Your task to perform on an android device: empty trash in the gmail app Image 0: 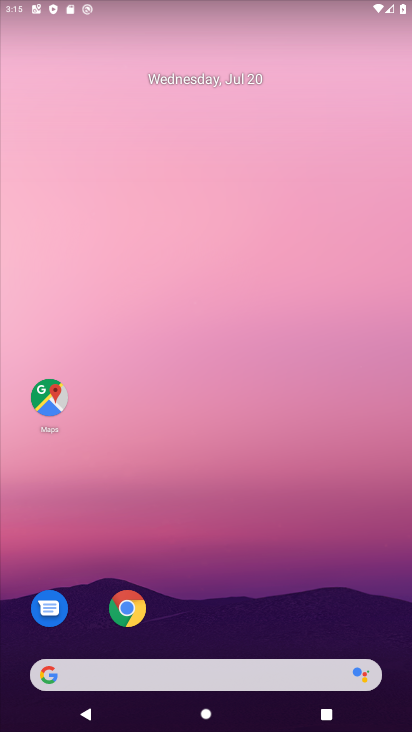
Step 0: drag from (404, 691) to (326, 13)
Your task to perform on an android device: empty trash in the gmail app Image 1: 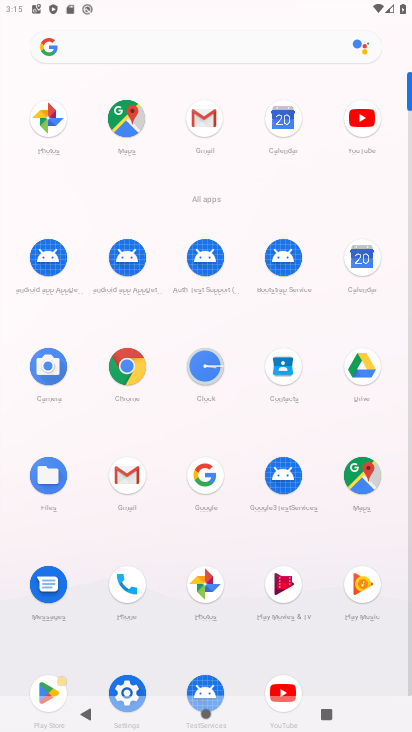
Step 1: click (118, 477)
Your task to perform on an android device: empty trash in the gmail app Image 2: 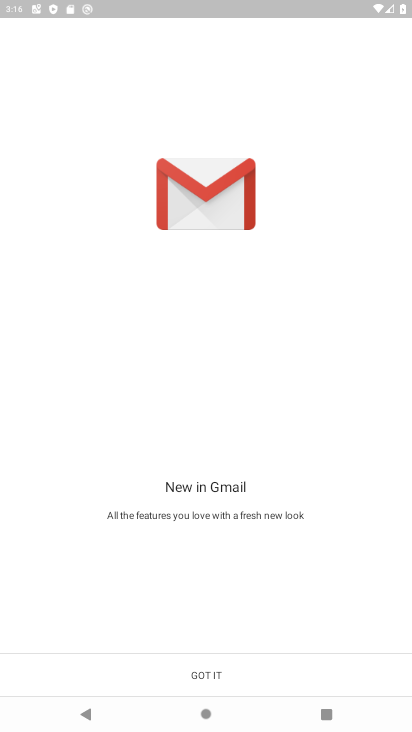
Step 2: click (204, 674)
Your task to perform on an android device: empty trash in the gmail app Image 3: 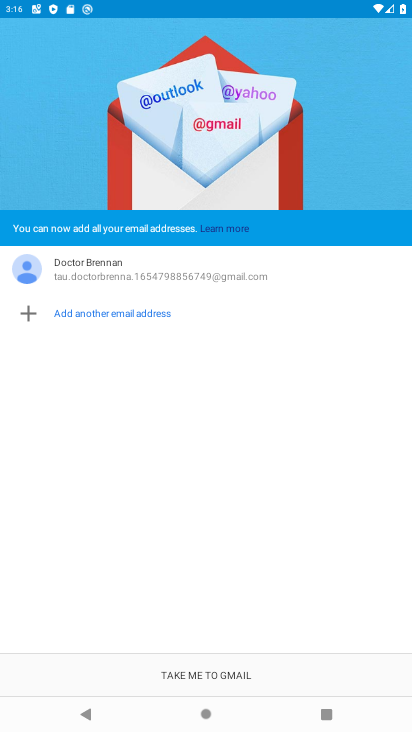
Step 3: click (215, 665)
Your task to perform on an android device: empty trash in the gmail app Image 4: 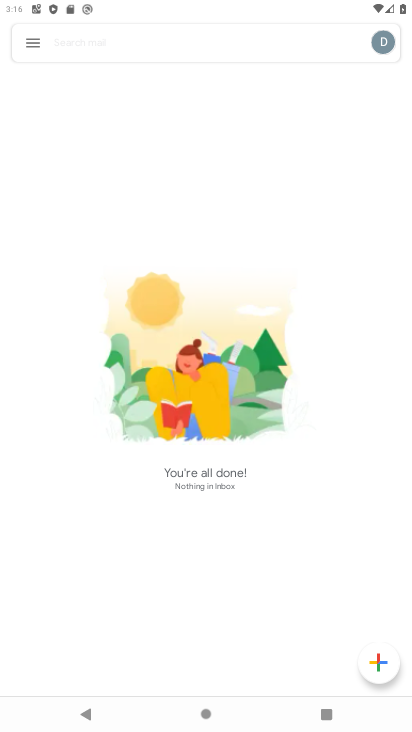
Step 4: click (26, 43)
Your task to perform on an android device: empty trash in the gmail app Image 5: 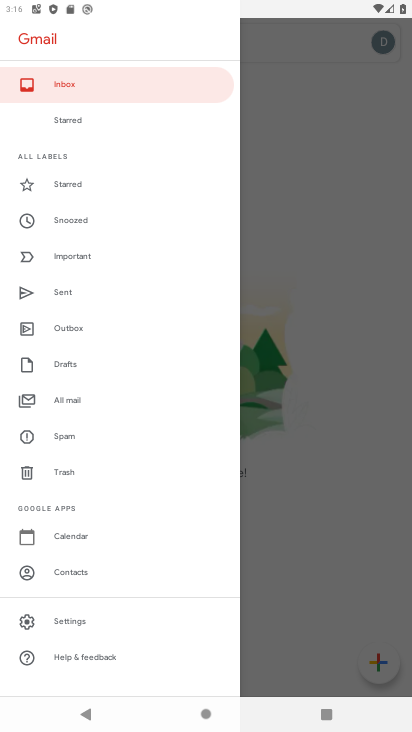
Step 5: click (60, 469)
Your task to perform on an android device: empty trash in the gmail app Image 6: 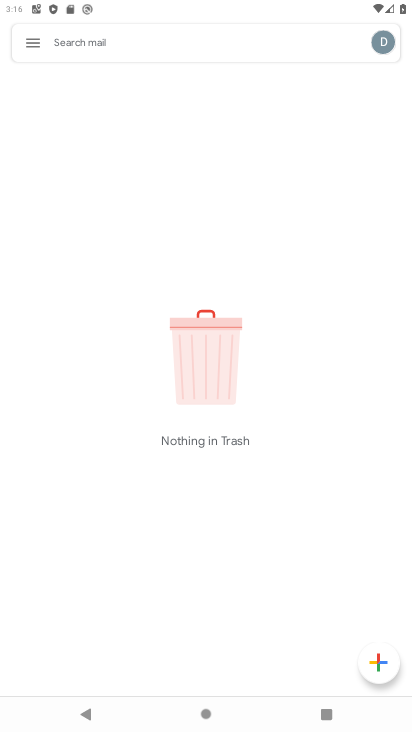
Step 6: task complete